Your task to perform on an android device: Open maps Image 0: 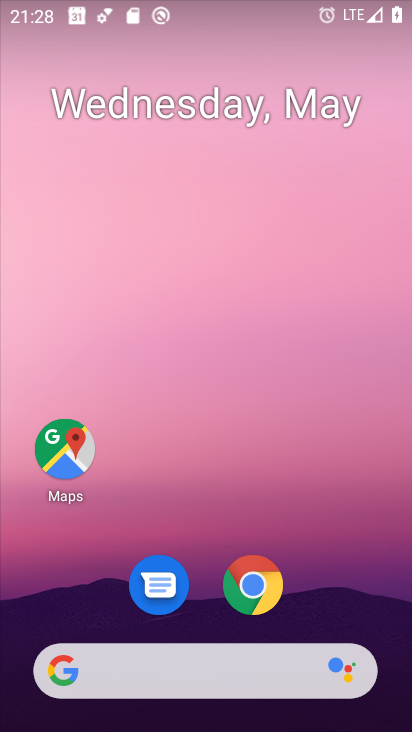
Step 0: click (75, 440)
Your task to perform on an android device: Open maps Image 1: 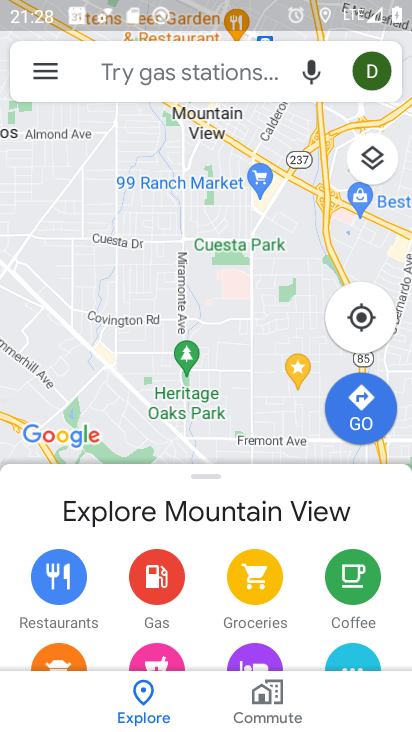
Step 1: task complete